Your task to perform on an android device: Add "usb-c" to the cart on target.com, then select checkout. Image 0: 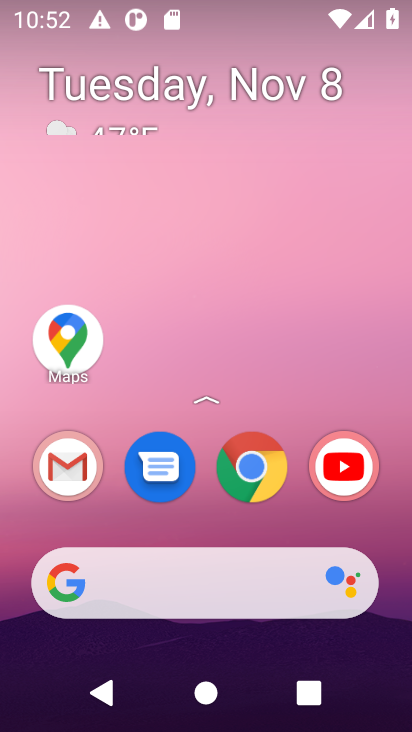
Step 0: click (171, 604)
Your task to perform on an android device: Add "usb-c" to the cart on target.com, then select checkout. Image 1: 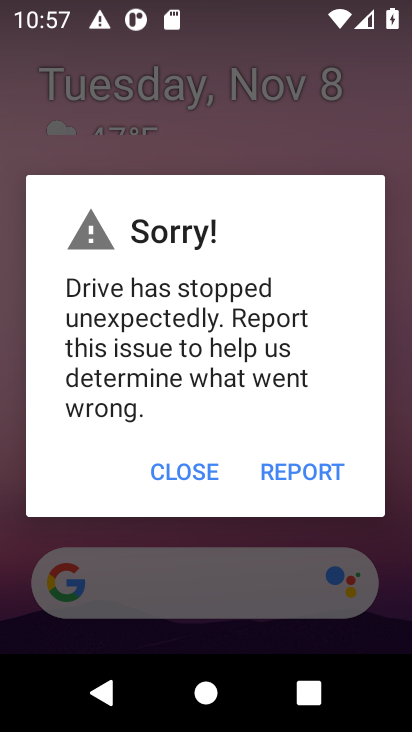
Step 1: click (205, 482)
Your task to perform on an android device: Add "usb-c" to the cart on target.com, then select checkout. Image 2: 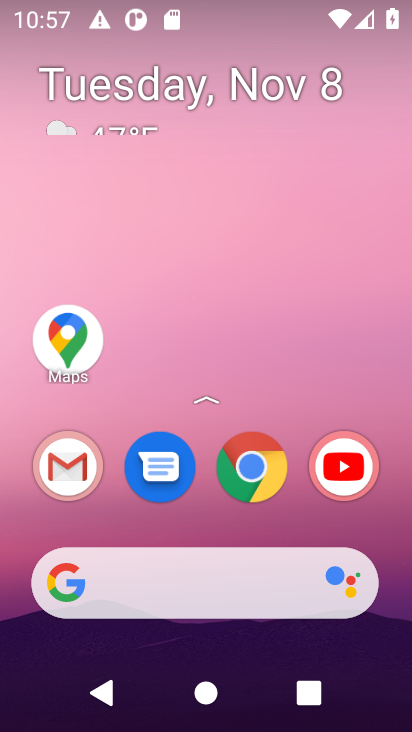
Step 2: click (250, 573)
Your task to perform on an android device: Add "usb-c" to the cart on target.com, then select checkout. Image 3: 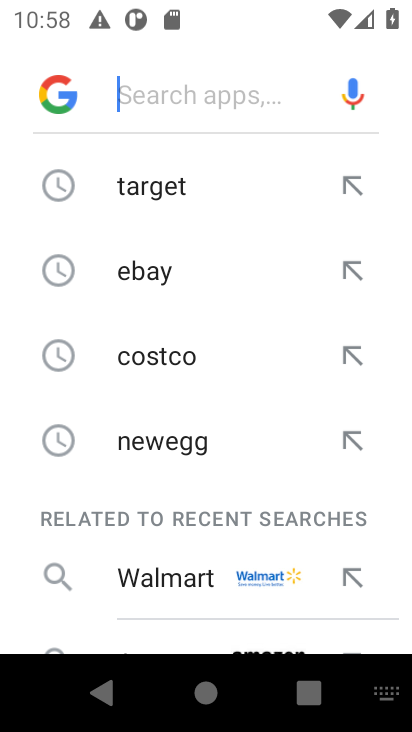
Step 3: click (160, 202)
Your task to perform on an android device: Add "usb-c" to the cart on target.com, then select checkout. Image 4: 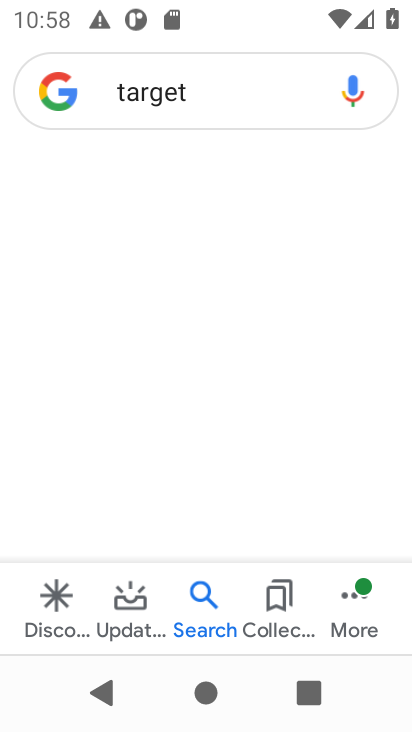
Step 4: task complete